Your task to perform on an android device: Go to Google maps Image 0: 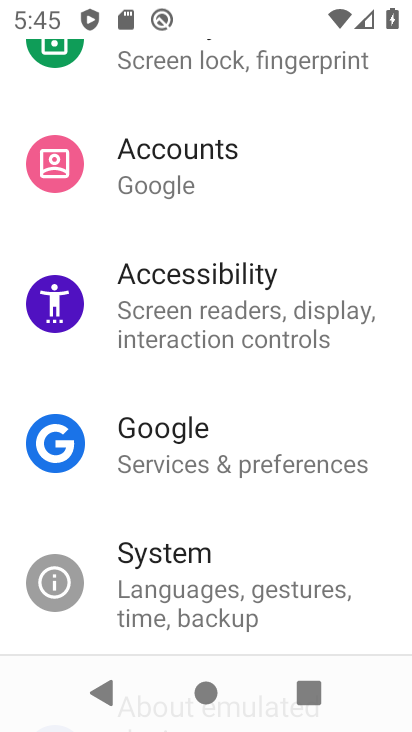
Step 0: press home button
Your task to perform on an android device: Go to Google maps Image 1: 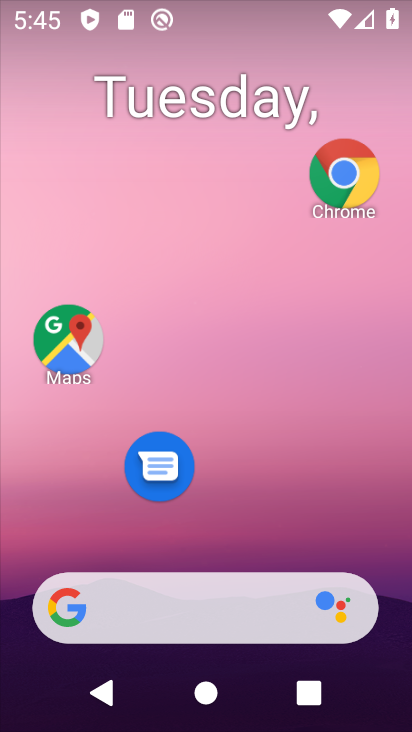
Step 1: click (98, 337)
Your task to perform on an android device: Go to Google maps Image 2: 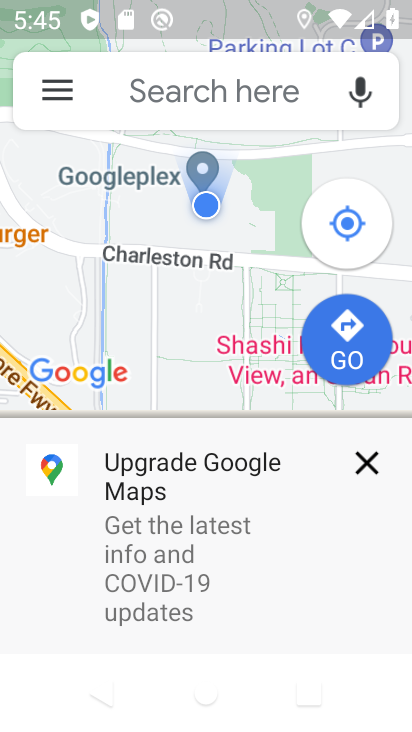
Step 2: task complete